Your task to perform on an android device: Go to battery settings Image 0: 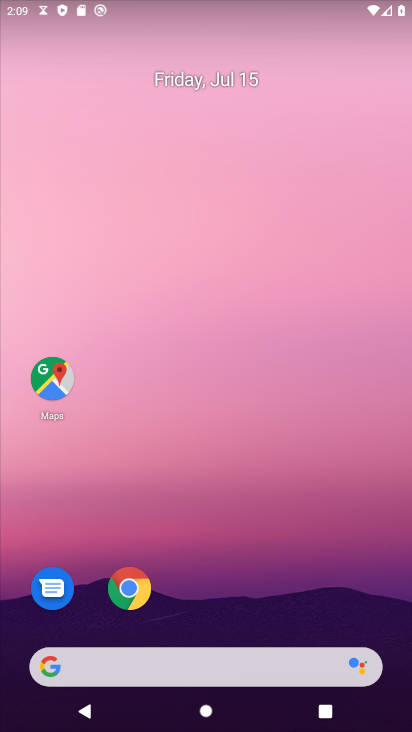
Step 0: drag from (271, 312) to (266, 209)
Your task to perform on an android device: Go to battery settings Image 1: 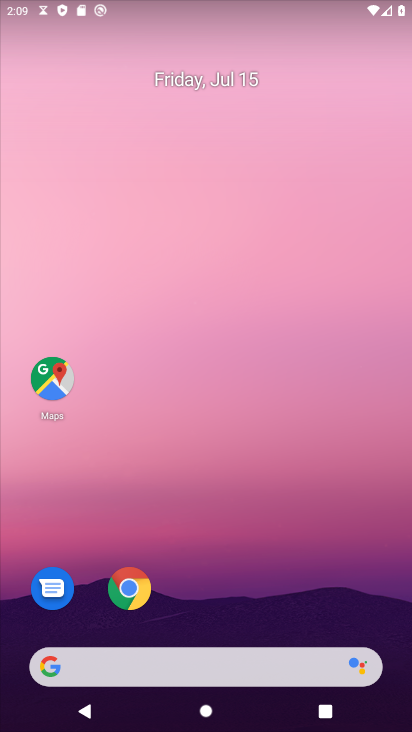
Step 1: drag from (211, 658) to (238, 174)
Your task to perform on an android device: Go to battery settings Image 2: 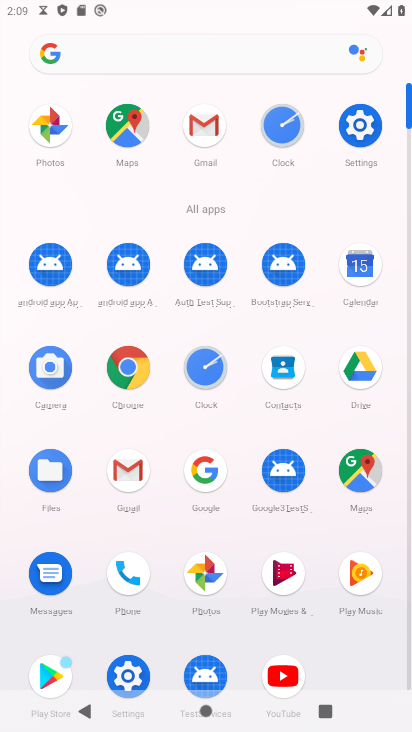
Step 2: click (357, 127)
Your task to perform on an android device: Go to battery settings Image 3: 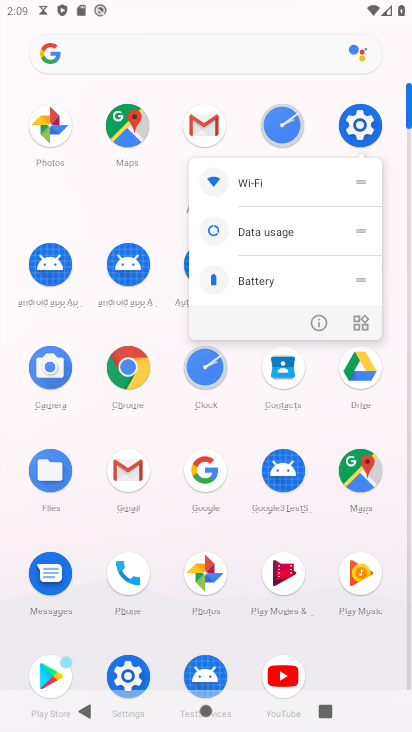
Step 3: click (356, 130)
Your task to perform on an android device: Go to battery settings Image 4: 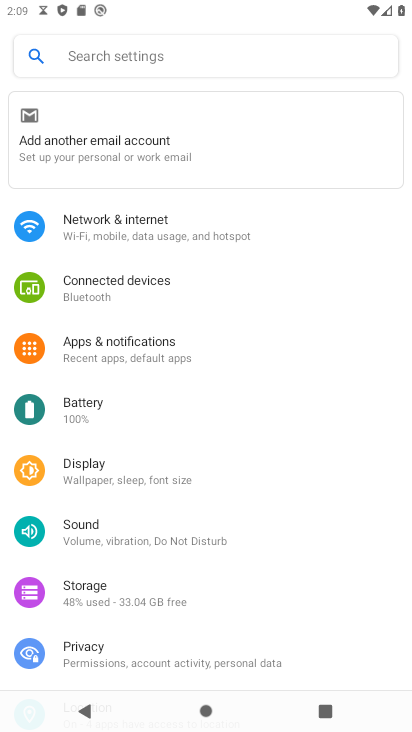
Step 4: click (83, 406)
Your task to perform on an android device: Go to battery settings Image 5: 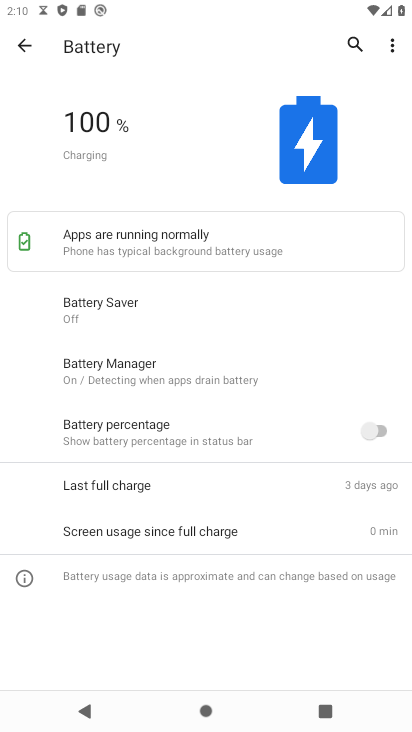
Step 5: task complete